Your task to perform on an android device: see sites visited before in the chrome app Image 0: 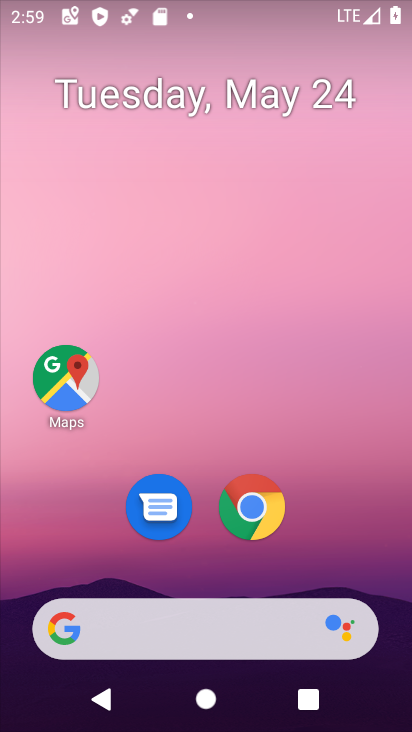
Step 0: click (233, 506)
Your task to perform on an android device: see sites visited before in the chrome app Image 1: 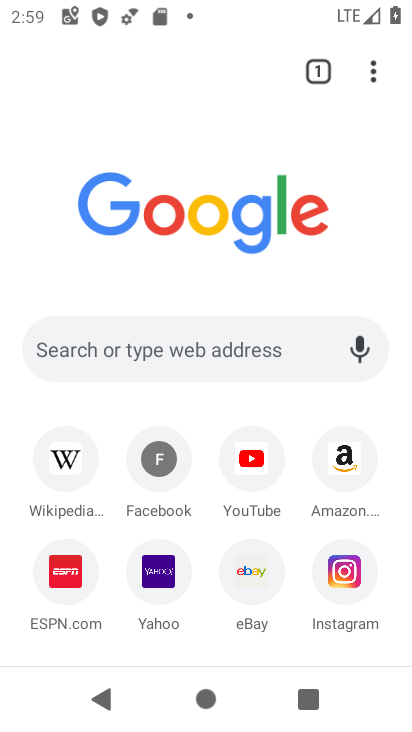
Step 1: task complete